Your task to perform on an android device: Open the calendar and show me this week's events? Image 0: 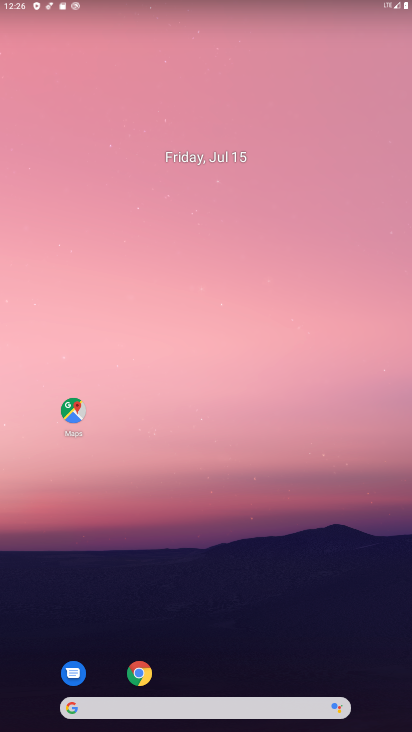
Step 0: drag from (375, 713) to (387, 147)
Your task to perform on an android device: Open the calendar and show me this week's events? Image 1: 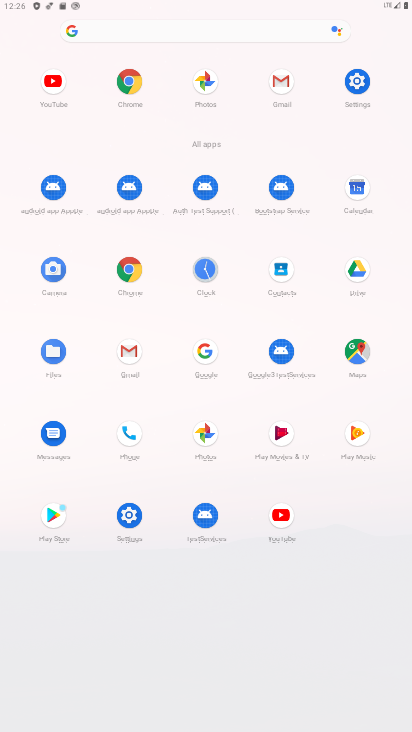
Step 1: click (358, 186)
Your task to perform on an android device: Open the calendar and show me this week's events? Image 2: 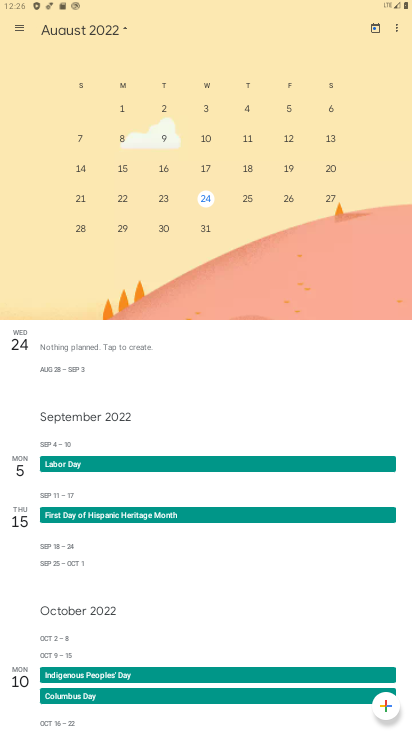
Step 2: drag from (49, 131) to (394, 130)
Your task to perform on an android device: Open the calendar and show me this week's events? Image 3: 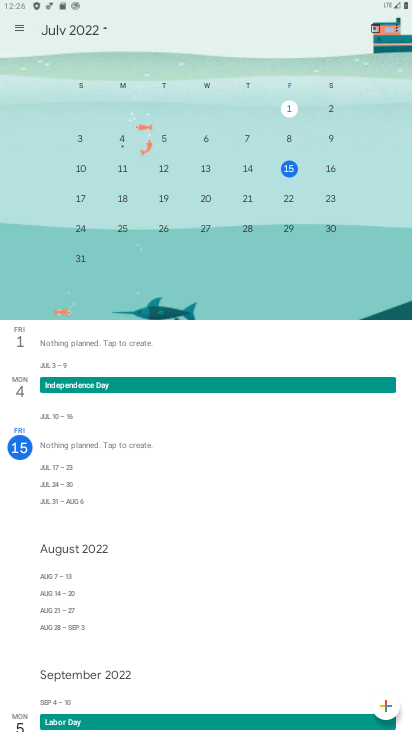
Step 3: click (21, 30)
Your task to perform on an android device: Open the calendar and show me this week's events? Image 4: 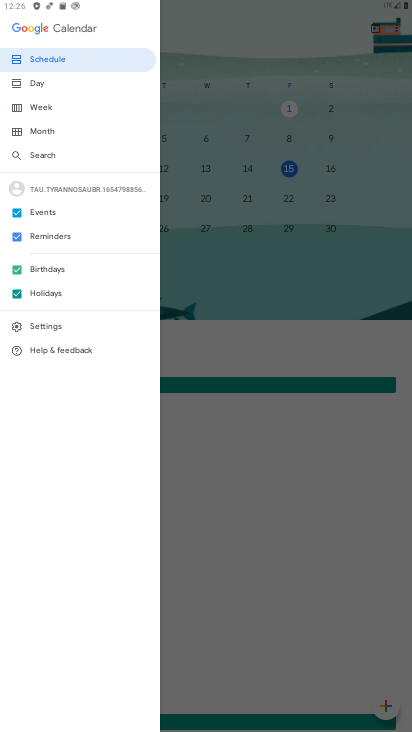
Step 4: click (44, 103)
Your task to perform on an android device: Open the calendar and show me this week's events? Image 5: 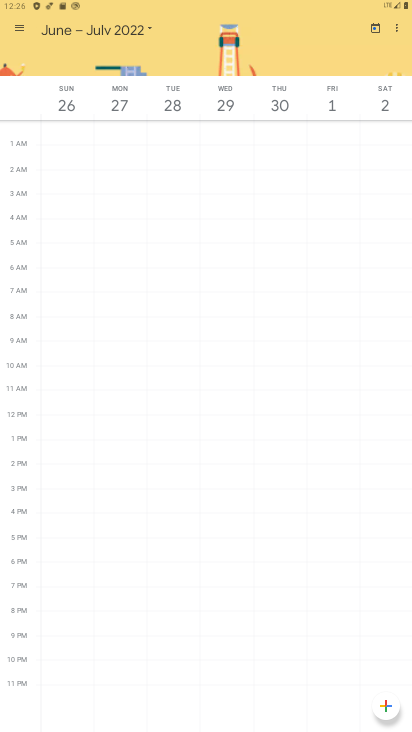
Step 5: click (15, 24)
Your task to perform on an android device: Open the calendar and show me this week's events? Image 6: 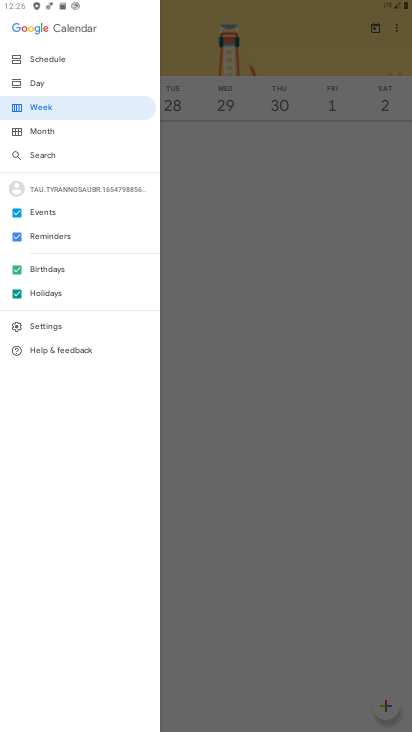
Step 6: click (38, 57)
Your task to perform on an android device: Open the calendar and show me this week's events? Image 7: 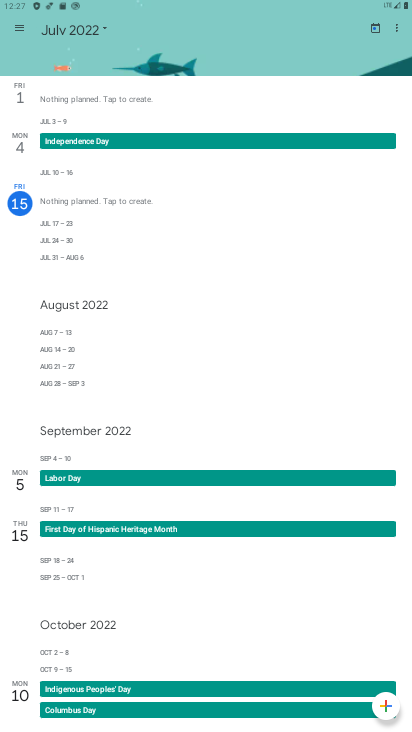
Step 7: task complete